Your task to perform on an android device: change alarm snooze length Image 0: 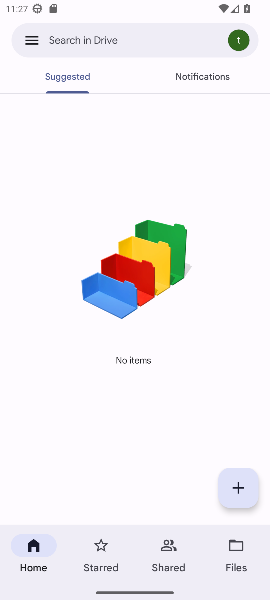
Step 0: task complete